Your task to perform on an android device: open app "Adobe Acrobat Reader: Edit PDF" (install if not already installed) Image 0: 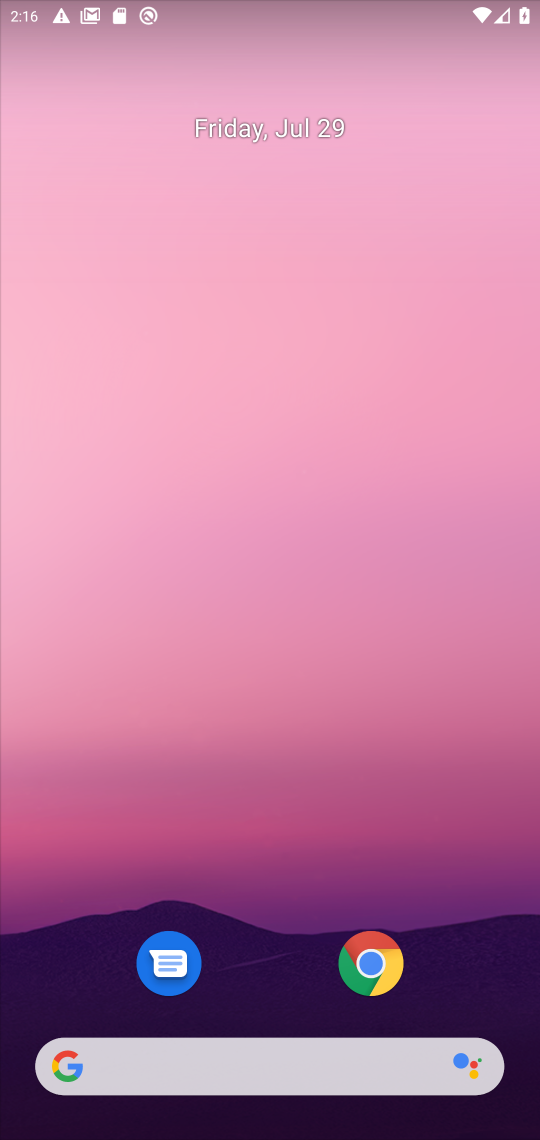
Step 0: drag from (240, 920) to (248, 140)
Your task to perform on an android device: open app "Adobe Acrobat Reader: Edit PDF" (install if not already installed) Image 1: 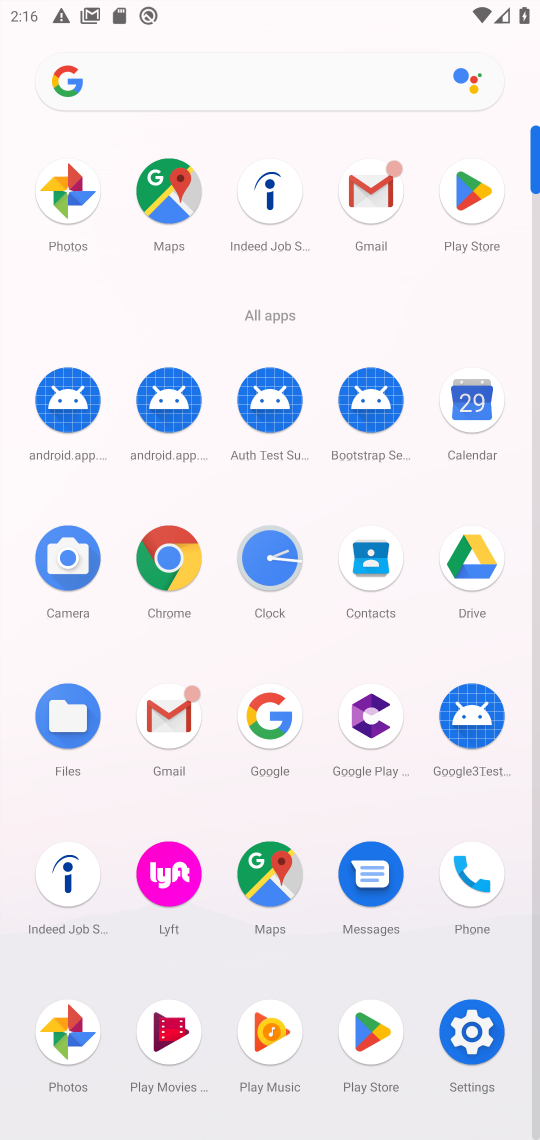
Step 1: click (477, 190)
Your task to perform on an android device: open app "Adobe Acrobat Reader: Edit PDF" (install if not already installed) Image 2: 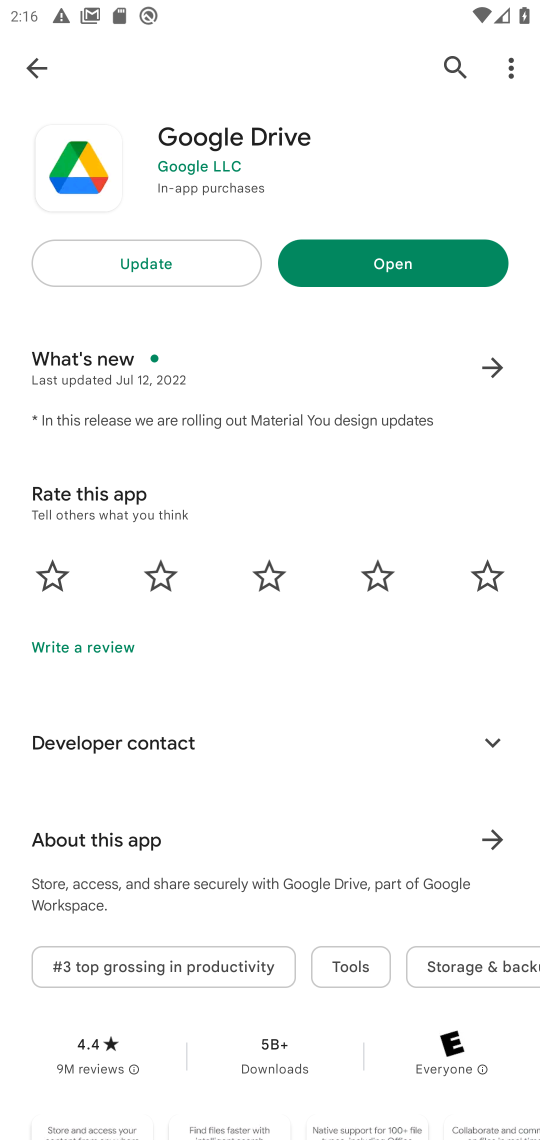
Step 2: click (467, 44)
Your task to perform on an android device: open app "Adobe Acrobat Reader: Edit PDF" (install if not already installed) Image 3: 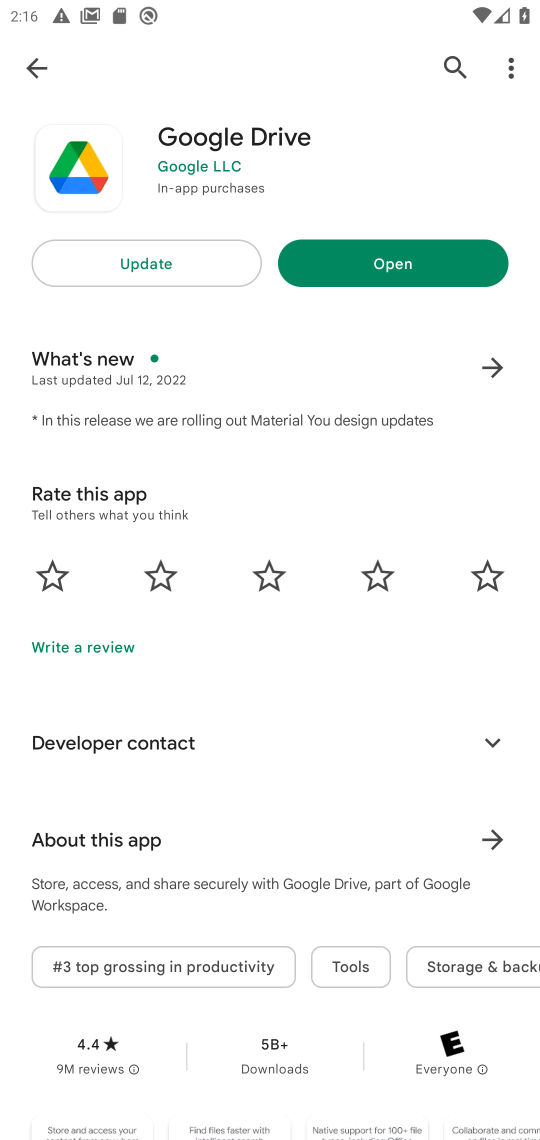
Step 3: click (464, 63)
Your task to perform on an android device: open app "Adobe Acrobat Reader: Edit PDF" (install if not already installed) Image 4: 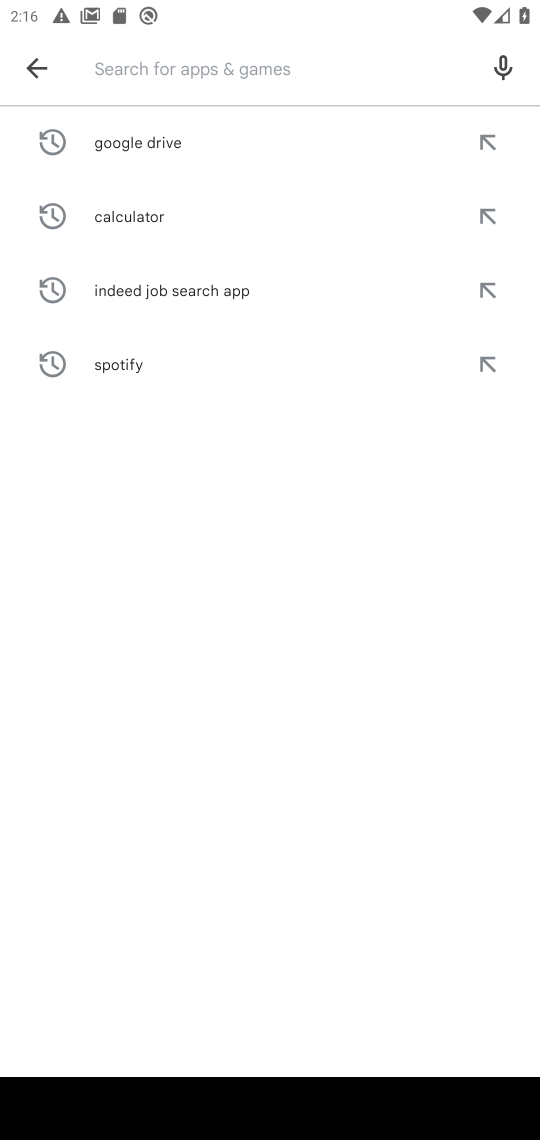
Step 4: type "Adobe Acrobat Reader: Edit Pdf"
Your task to perform on an android device: open app "Adobe Acrobat Reader: Edit PDF" (install if not already installed) Image 5: 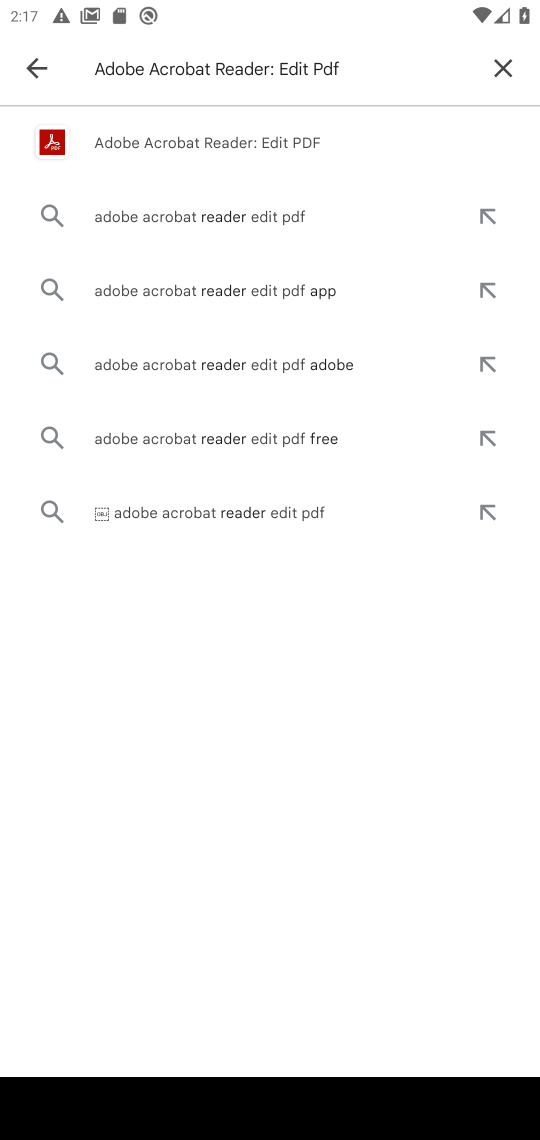
Step 5: click (297, 122)
Your task to perform on an android device: open app "Adobe Acrobat Reader: Edit PDF" (install if not already installed) Image 6: 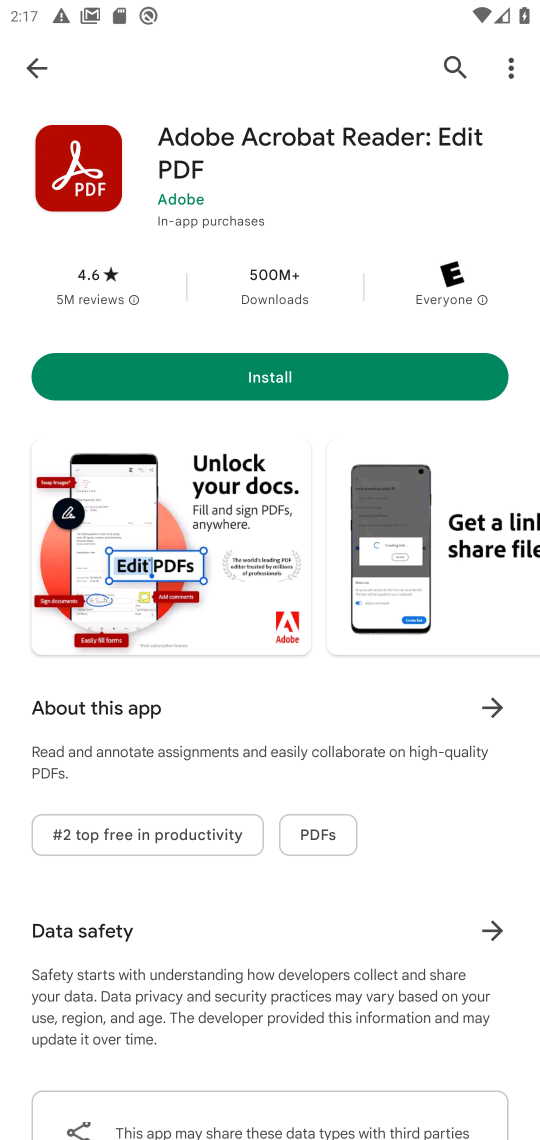
Step 6: click (381, 378)
Your task to perform on an android device: open app "Adobe Acrobat Reader: Edit PDF" (install if not already installed) Image 7: 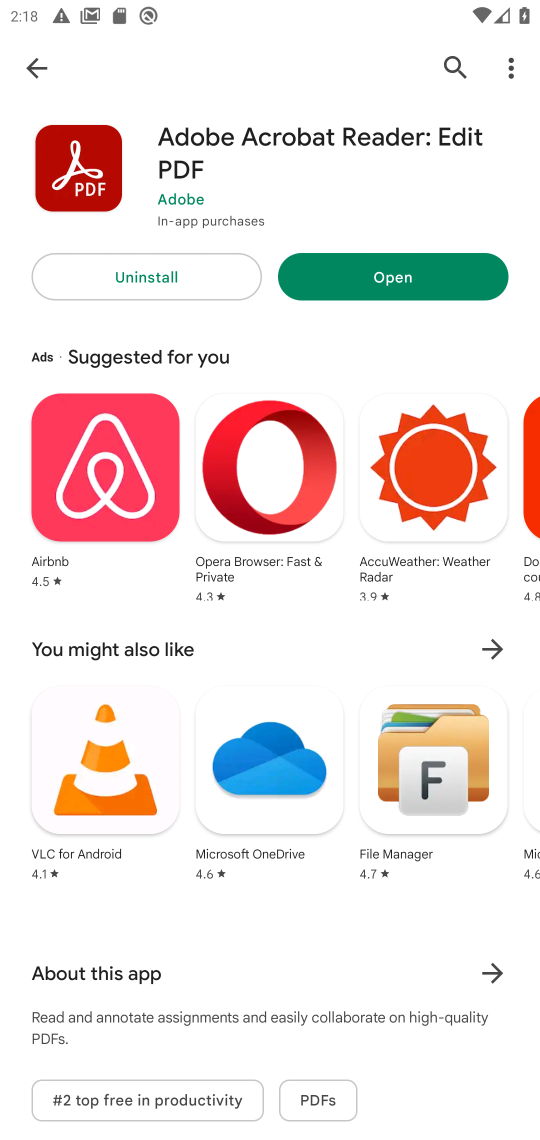
Step 7: click (424, 278)
Your task to perform on an android device: open app "Adobe Acrobat Reader: Edit PDF" (install if not already installed) Image 8: 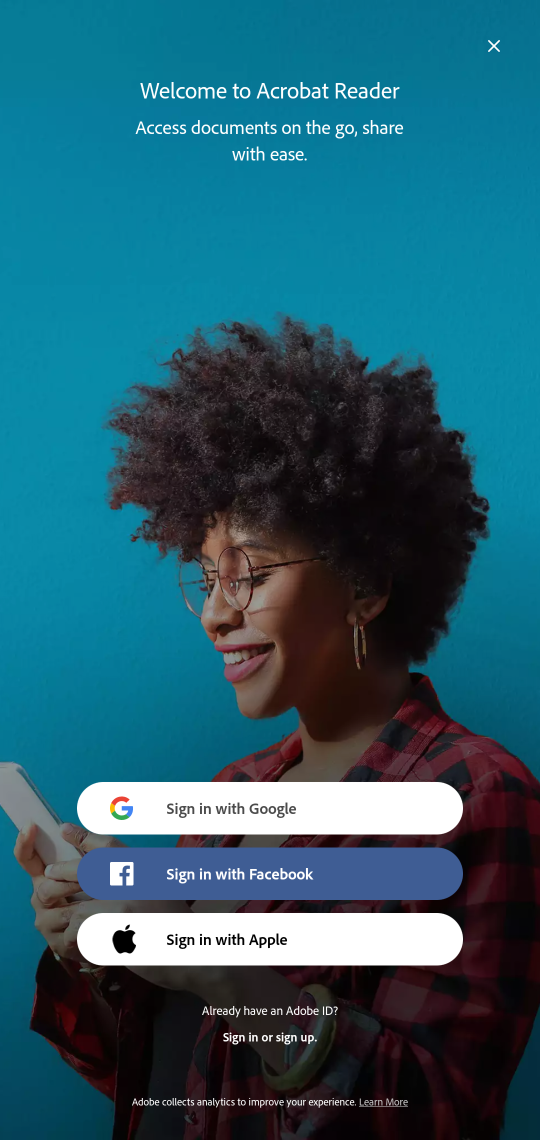
Step 8: task complete